Your task to perform on an android device: Go to Amazon Image 0: 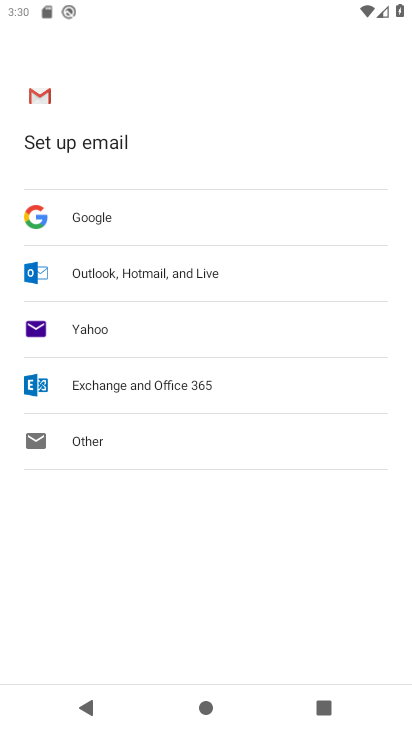
Step 0: press home button
Your task to perform on an android device: Go to Amazon Image 1: 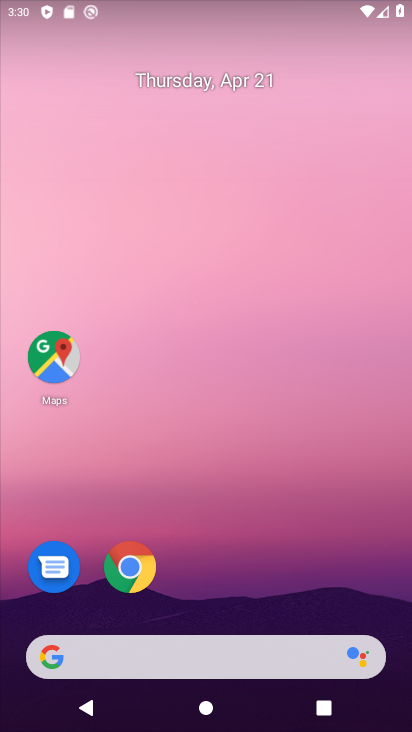
Step 1: click (146, 560)
Your task to perform on an android device: Go to Amazon Image 2: 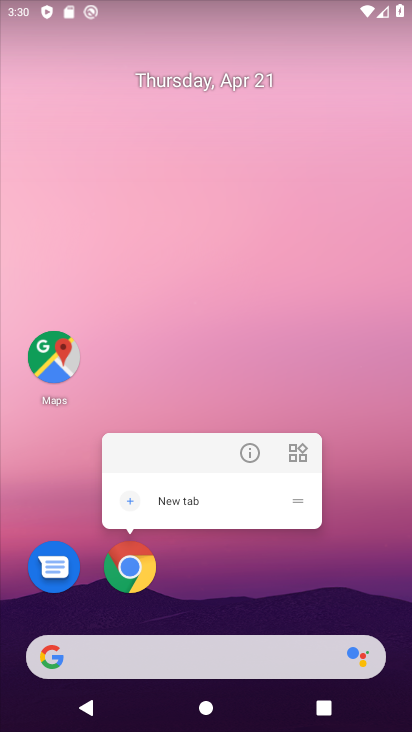
Step 2: click (146, 560)
Your task to perform on an android device: Go to Amazon Image 3: 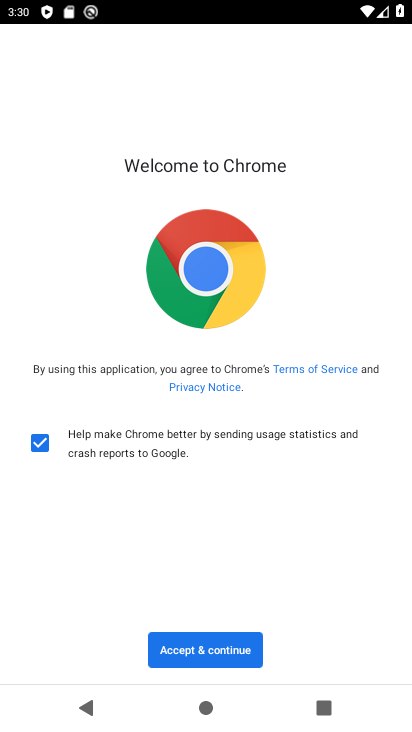
Step 3: click (190, 657)
Your task to perform on an android device: Go to Amazon Image 4: 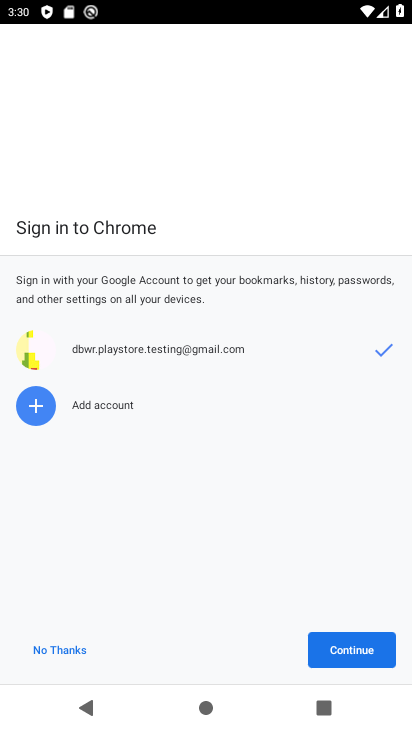
Step 4: click (36, 643)
Your task to perform on an android device: Go to Amazon Image 5: 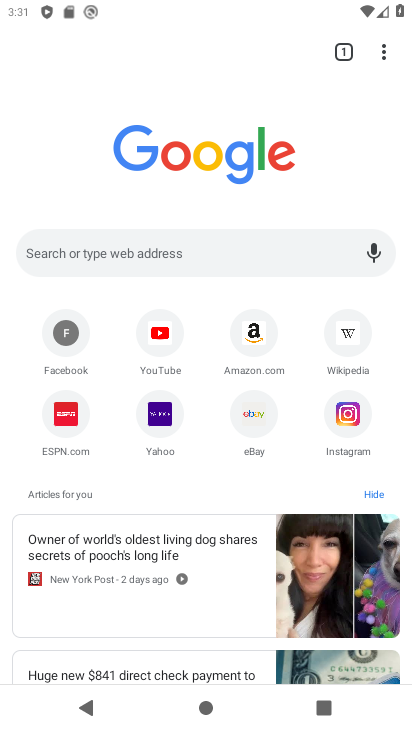
Step 5: click (239, 332)
Your task to perform on an android device: Go to Amazon Image 6: 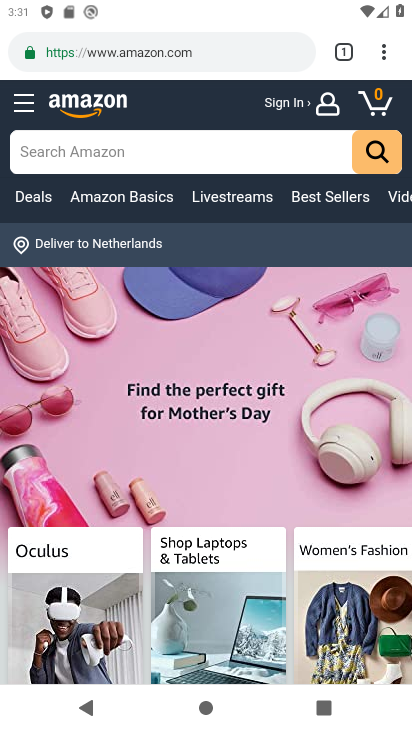
Step 6: task complete